Your task to perform on an android device: turn vacation reply on in the gmail app Image 0: 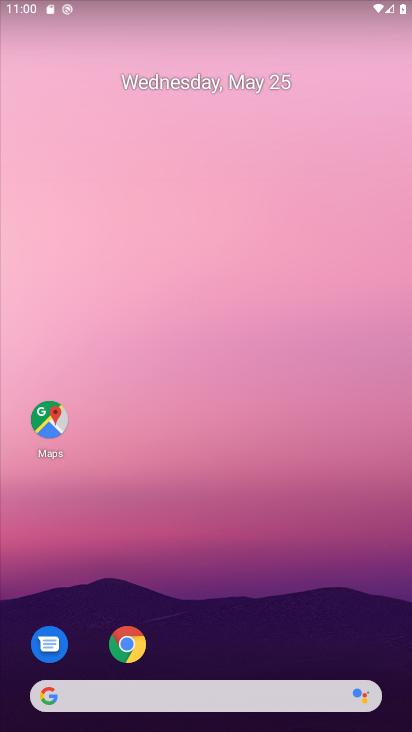
Step 0: drag from (254, 555) to (239, 59)
Your task to perform on an android device: turn vacation reply on in the gmail app Image 1: 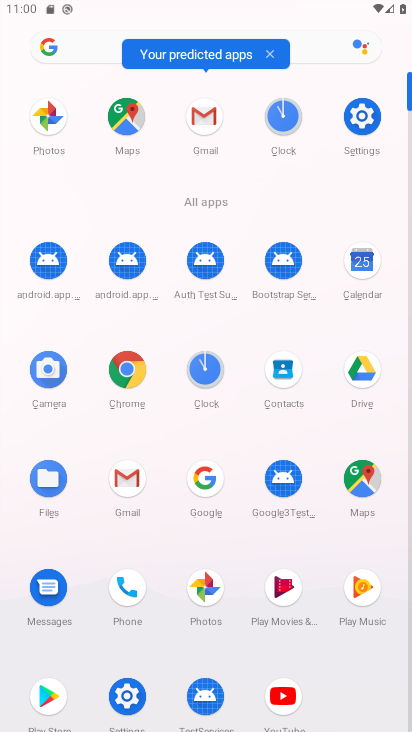
Step 1: click (205, 117)
Your task to perform on an android device: turn vacation reply on in the gmail app Image 2: 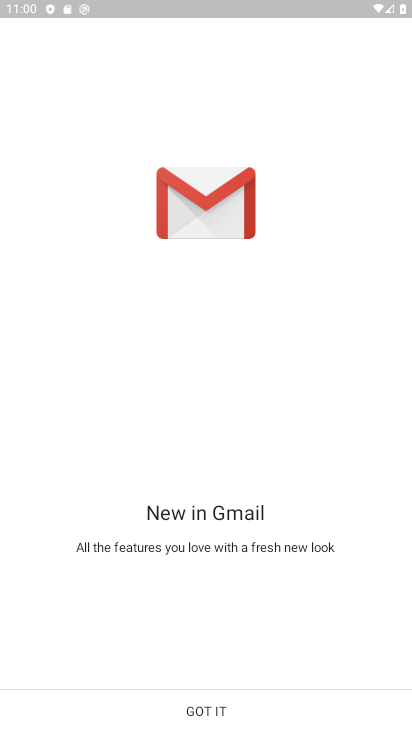
Step 2: click (206, 709)
Your task to perform on an android device: turn vacation reply on in the gmail app Image 3: 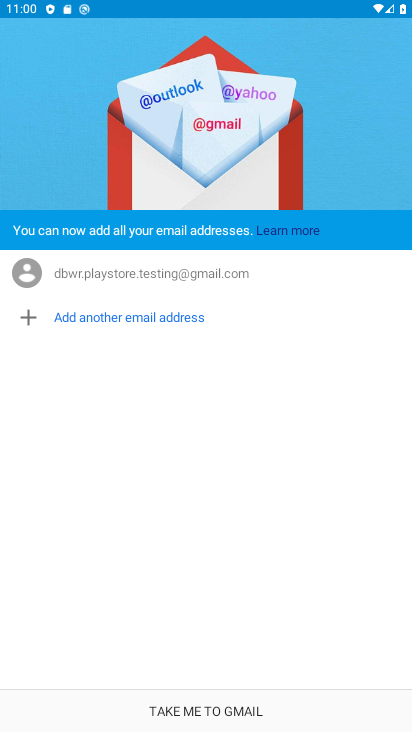
Step 3: click (206, 709)
Your task to perform on an android device: turn vacation reply on in the gmail app Image 4: 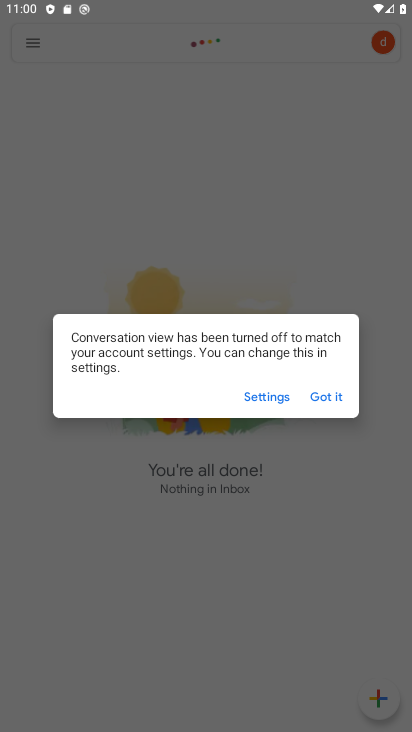
Step 4: click (322, 401)
Your task to perform on an android device: turn vacation reply on in the gmail app Image 5: 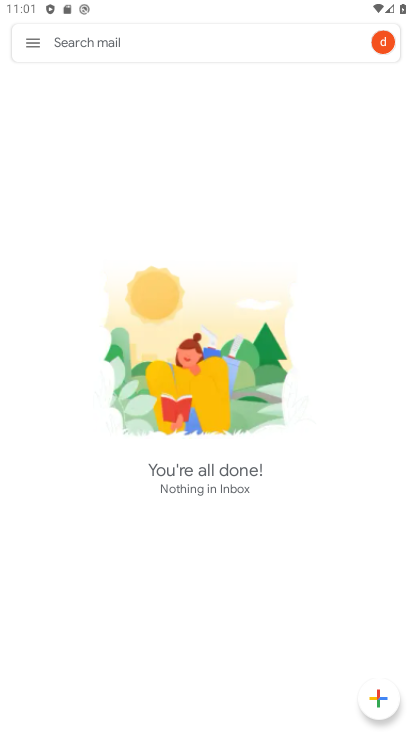
Step 5: click (36, 40)
Your task to perform on an android device: turn vacation reply on in the gmail app Image 6: 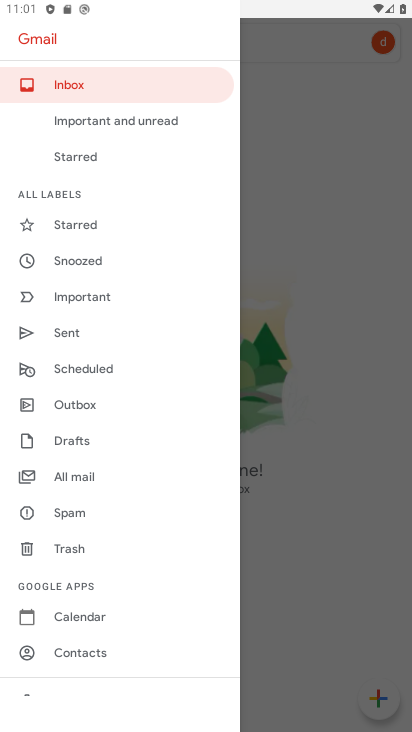
Step 6: drag from (72, 384) to (83, 296)
Your task to perform on an android device: turn vacation reply on in the gmail app Image 7: 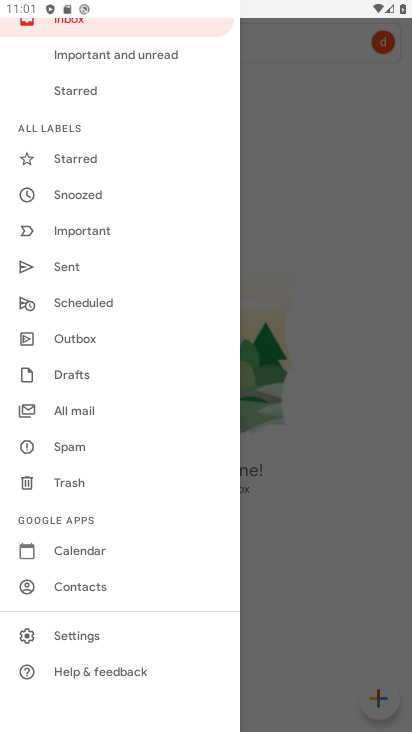
Step 7: click (101, 633)
Your task to perform on an android device: turn vacation reply on in the gmail app Image 8: 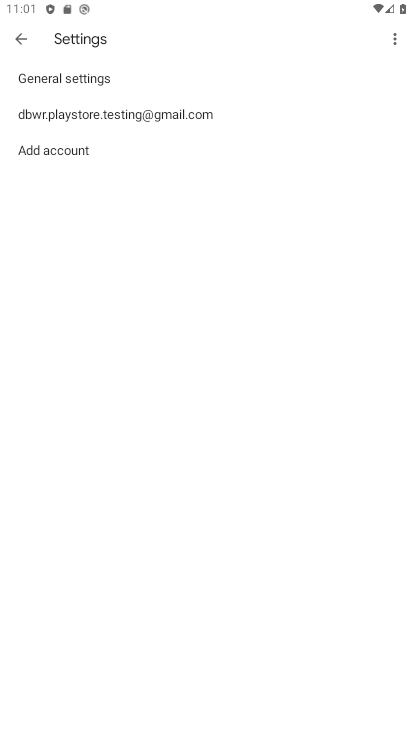
Step 8: click (183, 112)
Your task to perform on an android device: turn vacation reply on in the gmail app Image 9: 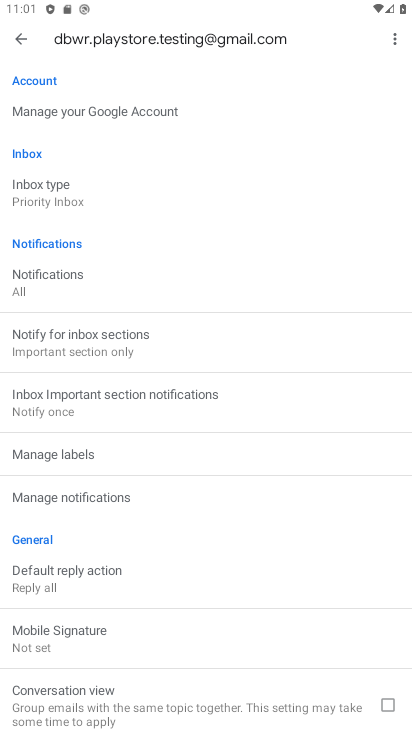
Step 9: drag from (122, 526) to (184, 435)
Your task to perform on an android device: turn vacation reply on in the gmail app Image 10: 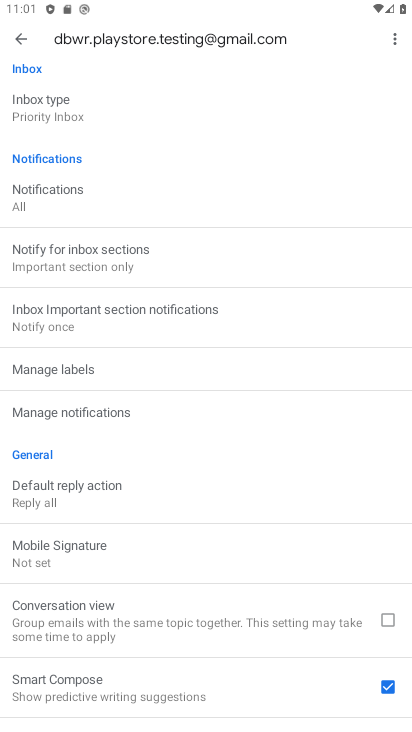
Step 10: drag from (149, 559) to (185, 466)
Your task to perform on an android device: turn vacation reply on in the gmail app Image 11: 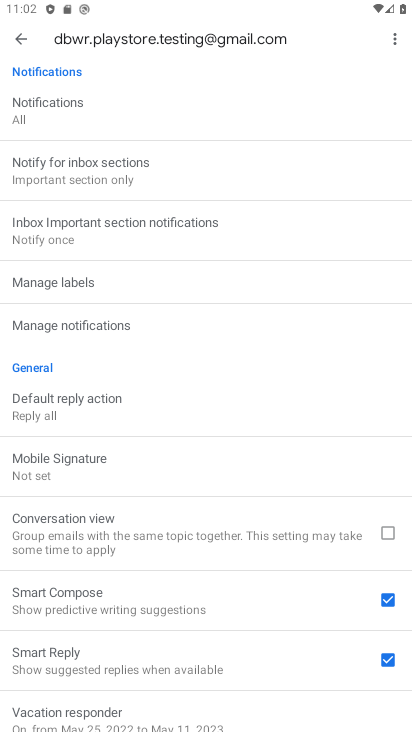
Step 11: drag from (153, 643) to (202, 547)
Your task to perform on an android device: turn vacation reply on in the gmail app Image 12: 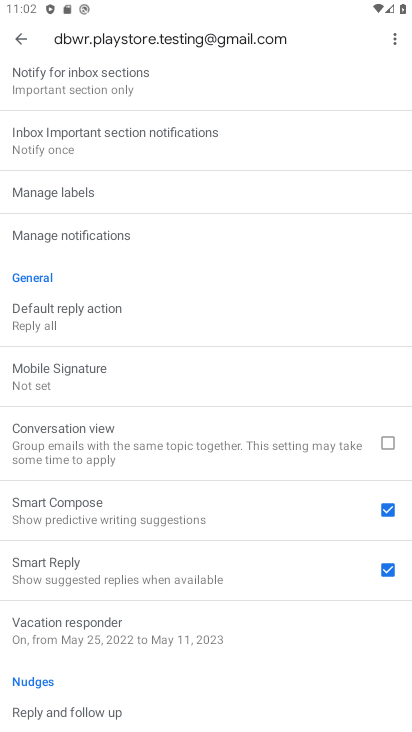
Step 12: click (107, 636)
Your task to perform on an android device: turn vacation reply on in the gmail app Image 13: 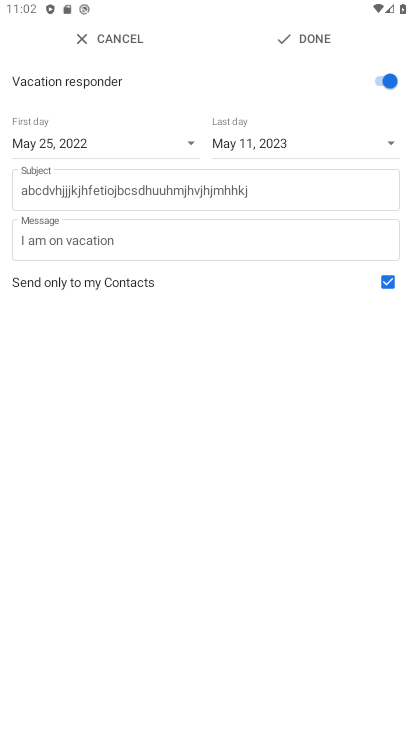
Step 13: task complete